Your task to perform on an android device: toggle airplane mode Image 0: 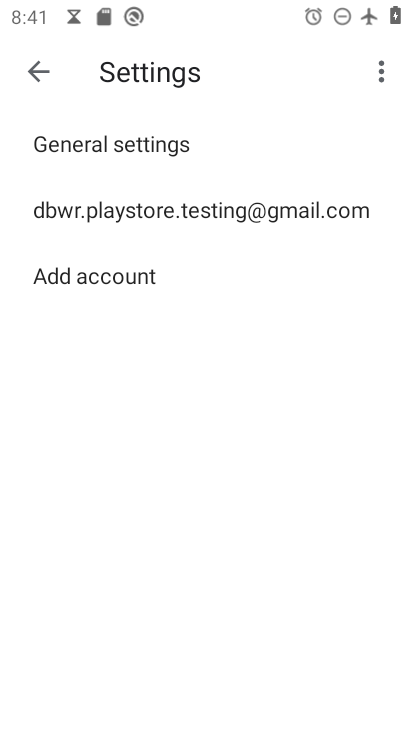
Step 0: press home button
Your task to perform on an android device: toggle airplane mode Image 1: 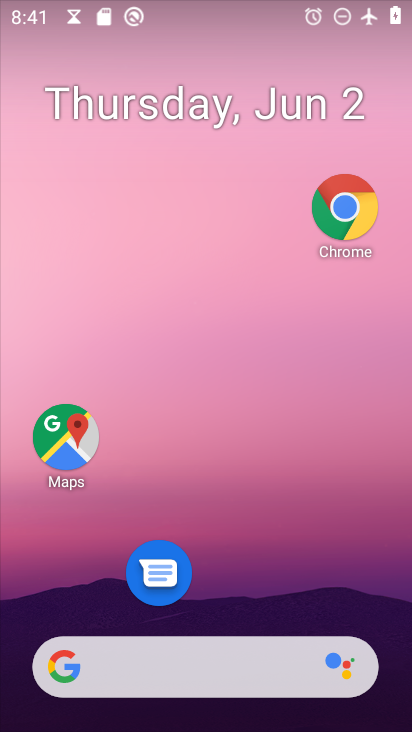
Step 1: drag from (187, 620) to (283, 113)
Your task to perform on an android device: toggle airplane mode Image 2: 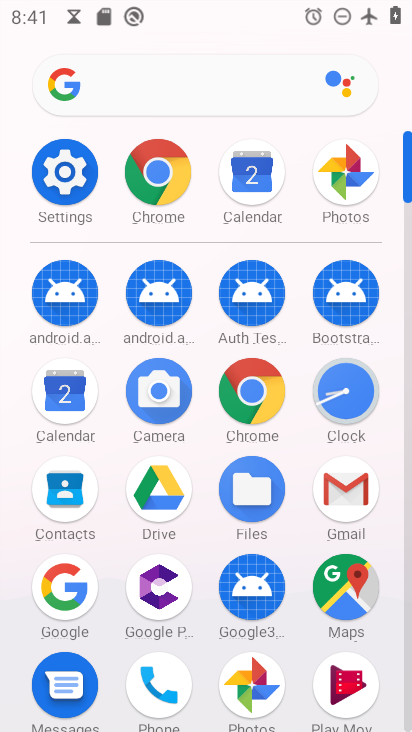
Step 2: click (66, 171)
Your task to perform on an android device: toggle airplane mode Image 3: 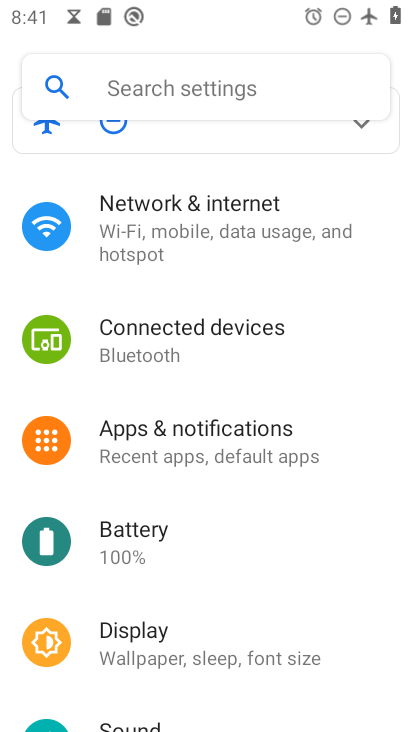
Step 3: click (200, 231)
Your task to perform on an android device: toggle airplane mode Image 4: 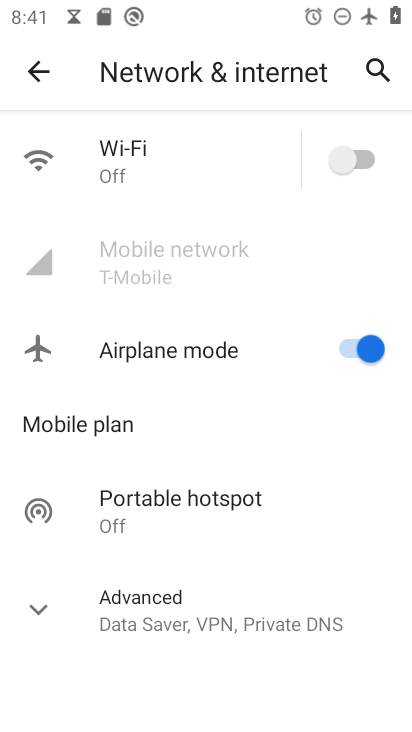
Step 4: click (357, 345)
Your task to perform on an android device: toggle airplane mode Image 5: 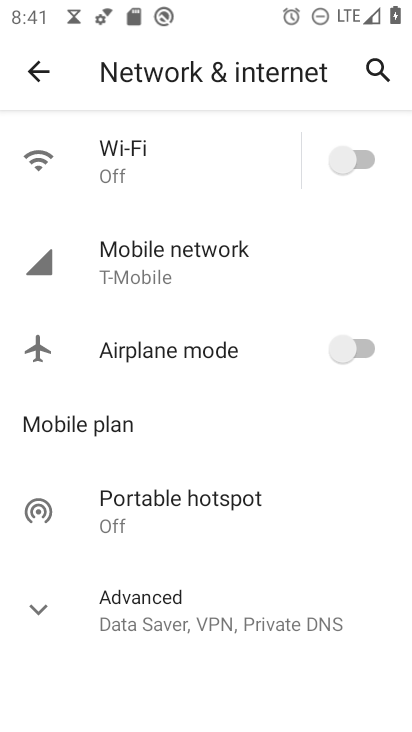
Step 5: task complete